Your task to perform on an android device: turn on the 12-hour format for clock Image 0: 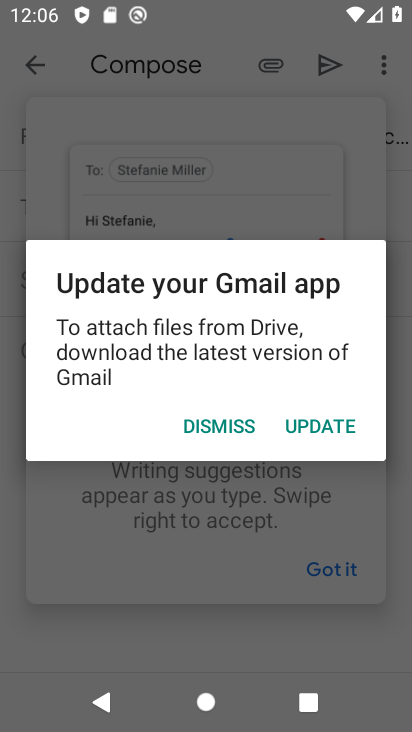
Step 0: press home button
Your task to perform on an android device: turn on the 12-hour format for clock Image 1: 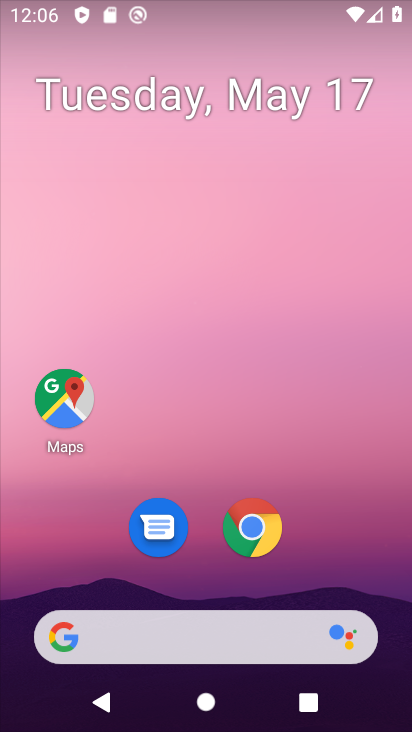
Step 1: drag from (388, 539) to (357, 216)
Your task to perform on an android device: turn on the 12-hour format for clock Image 2: 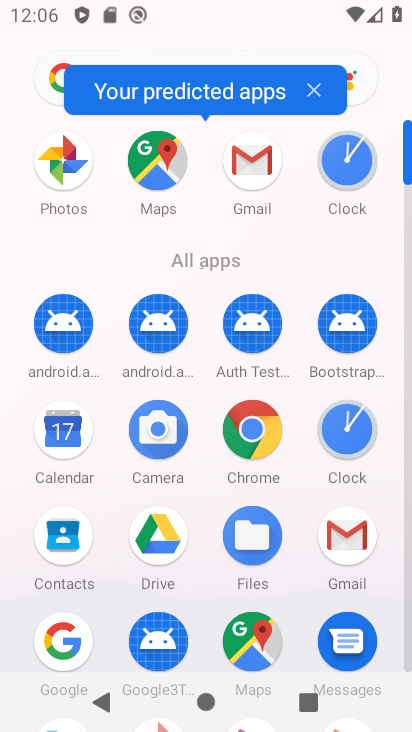
Step 2: drag from (288, 561) to (272, 241)
Your task to perform on an android device: turn on the 12-hour format for clock Image 3: 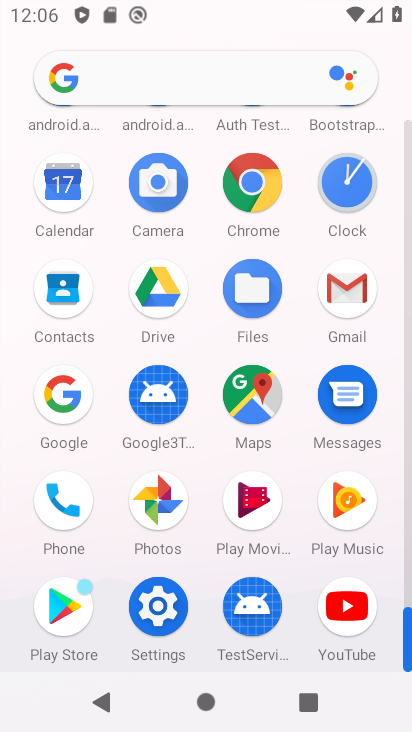
Step 3: click (140, 617)
Your task to perform on an android device: turn on the 12-hour format for clock Image 4: 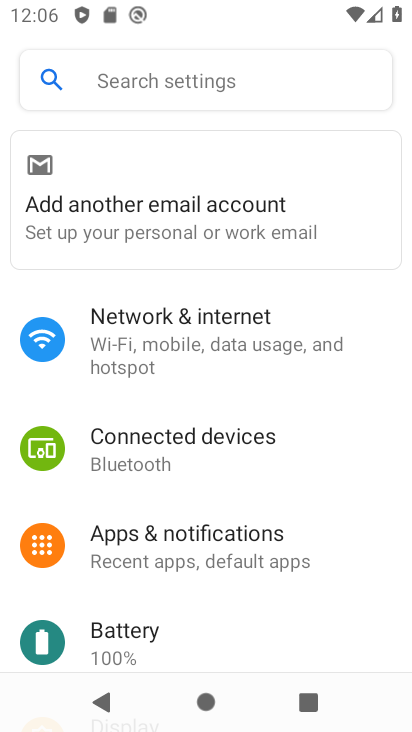
Step 4: drag from (292, 594) to (316, 369)
Your task to perform on an android device: turn on the 12-hour format for clock Image 5: 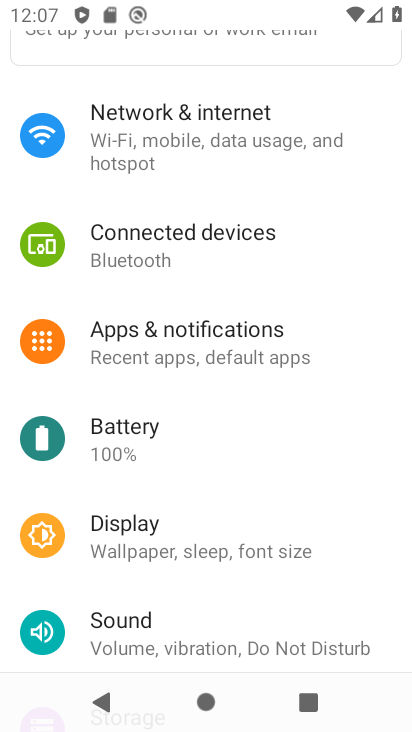
Step 5: press home button
Your task to perform on an android device: turn on the 12-hour format for clock Image 6: 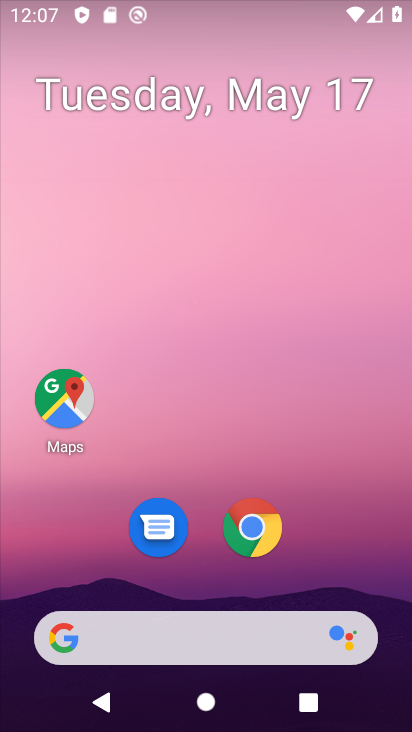
Step 6: drag from (359, 547) to (330, 175)
Your task to perform on an android device: turn on the 12-hour format for clock Image 7: 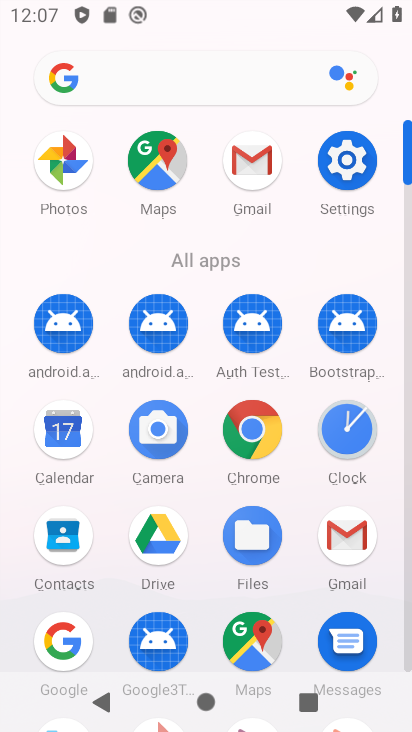
Step 7: click (355, 419)
Your task to perform on an android device: turn on the 12-hour format for clock Image 8: 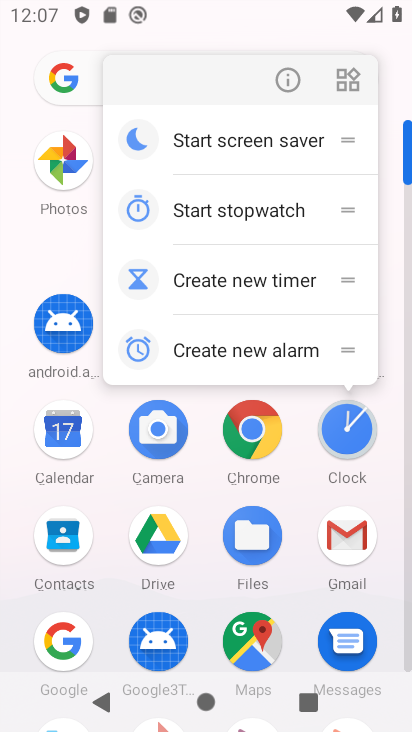
Step 8: click (345, 428)
Your task to perform on an android device: turn on the 12-hour format for clock Image 9: 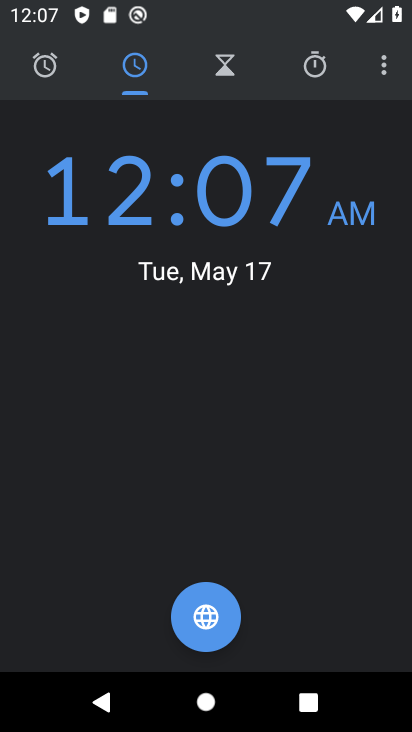
Step 9: click (381, 81)
Your task to perform on an android device: turn on the 12-hour format for clock Image 10: 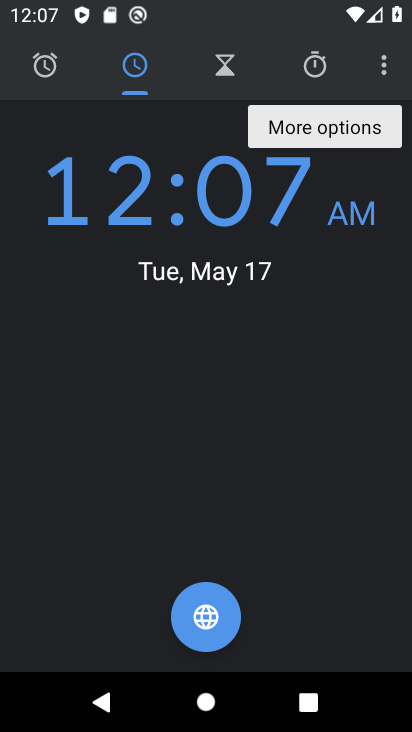
Step 10: click (382, 86)
Your task to perform on an android device: turn on the 12-hour format for clock Image 11: 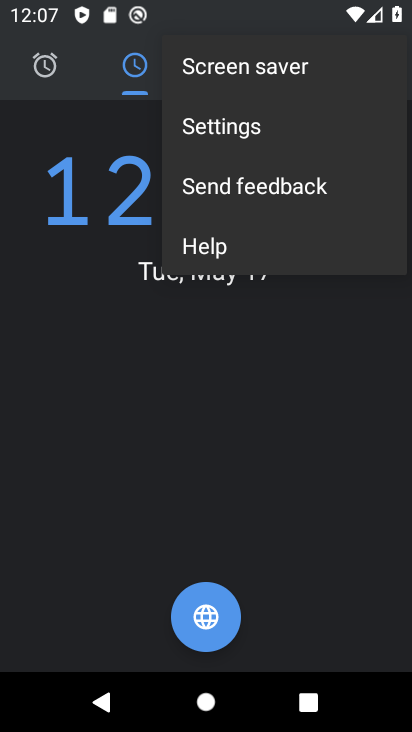
Step 11: click (284, 131)
Your task to perform on an android device: turn on the 12-hour format for clock Image 12: 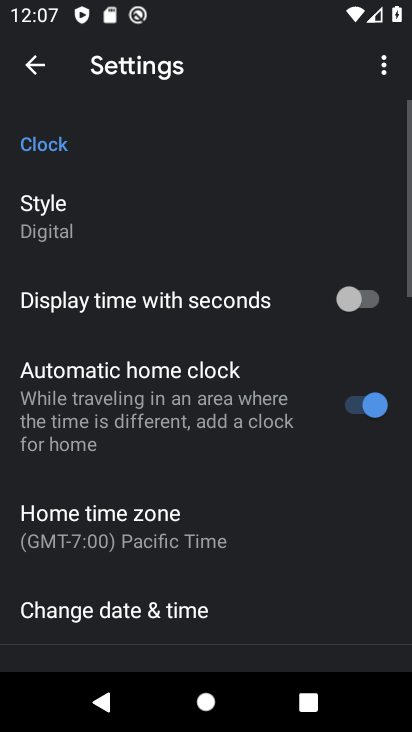
Step 12: drag from (290, 573) to (259, 313)
Your task to perform on an android device: turn on the 12-hour format for clock Image 13: 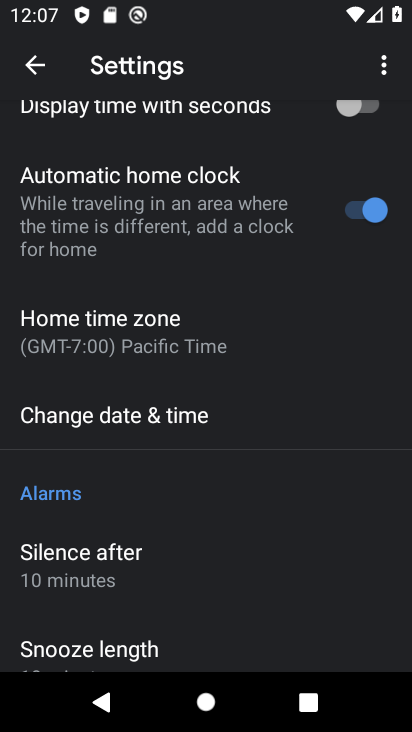
Step 13: click (198, 409)
Your task to perform on an android device: turn on the 12-hour format for clock Image 14: 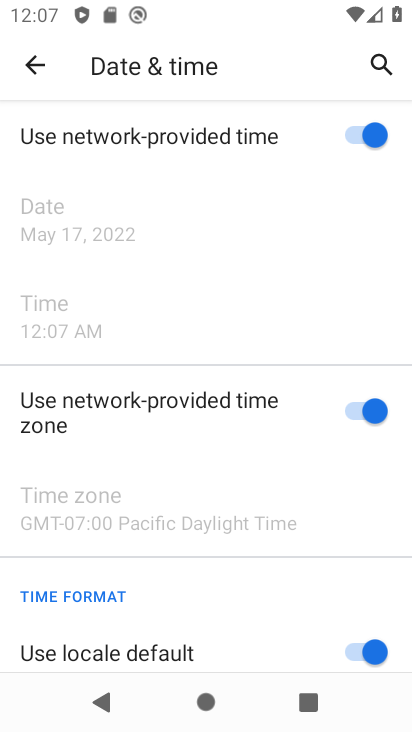
Step 14: task complete